Your task to perform on an android device: open a new tab in the chrome app Image 0: 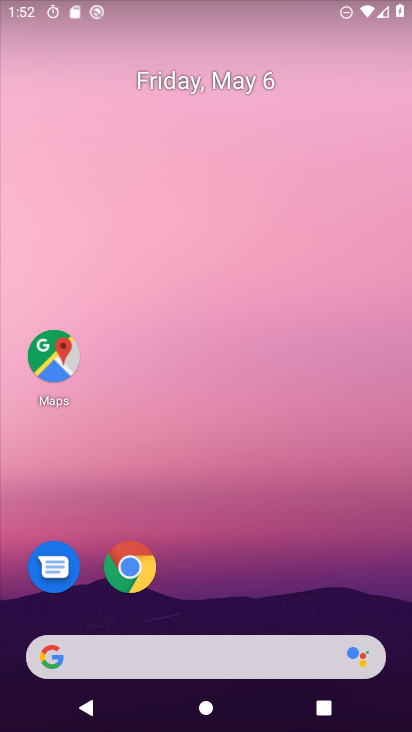
Step 0: click (133, 566)
Your task to perform on an android device: open a new tab in the chrome app Image 1: 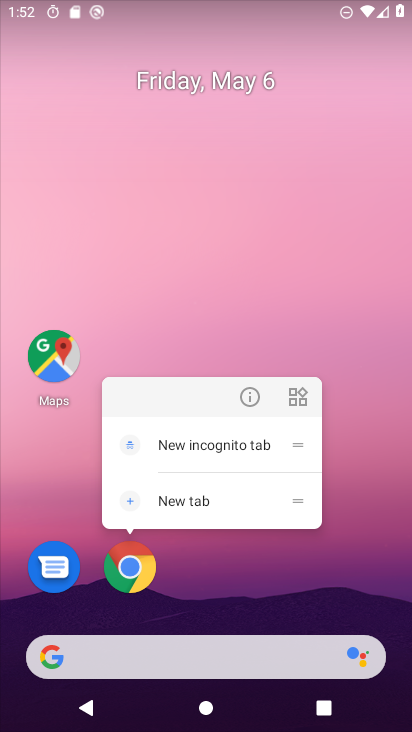
Step 1: click (124, 575)
Your task to perform on an android device: open a new tab in the chrome app Image 2: 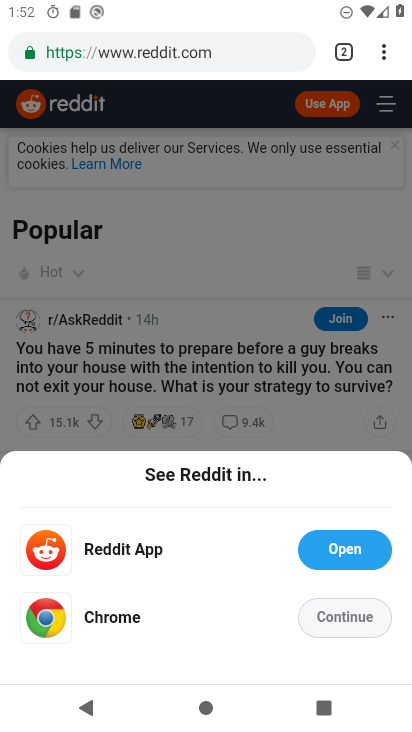
Step 2: task complete